Your task to perform on an android device: Open Android settings Image 0: 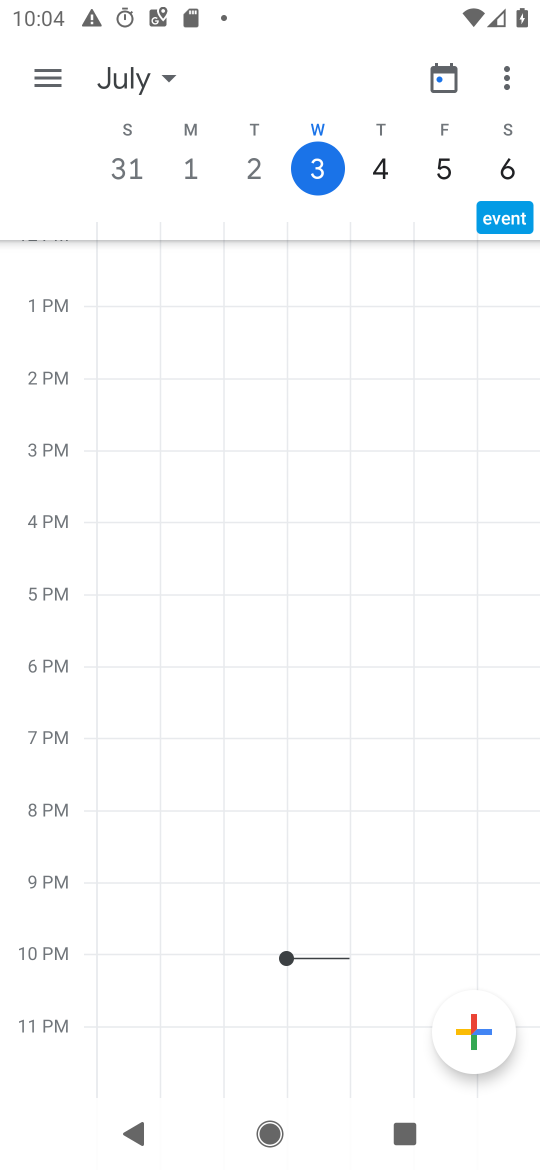
Step 0: press home button
Your task to perform on an android device: Open Android settings Image 1: 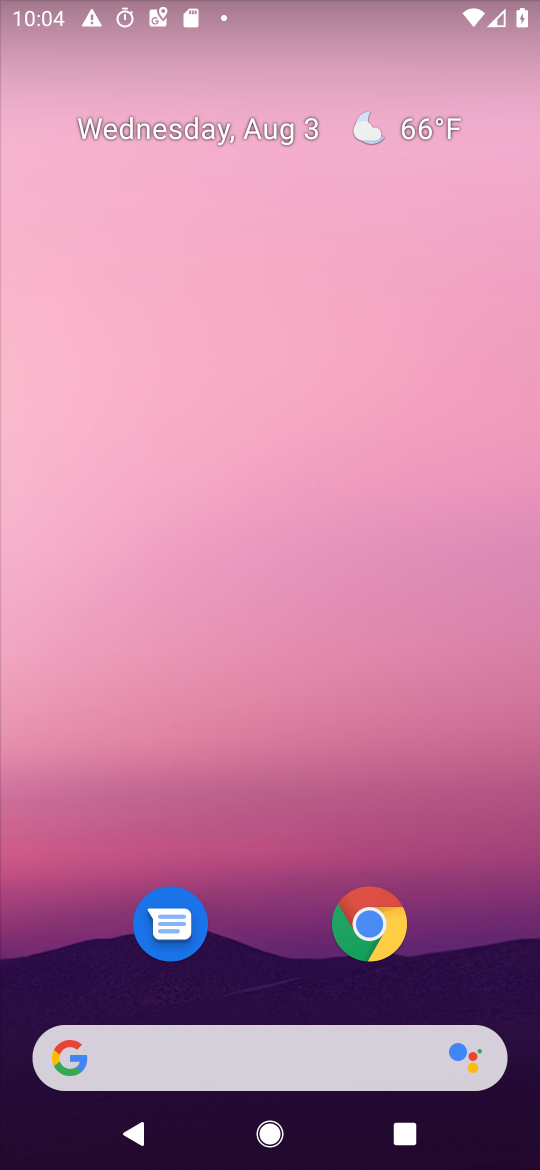
Step 1: drag from (265, 1000) to (274, 42)
Your task to perform on an android device: Open Android settings Image 2: 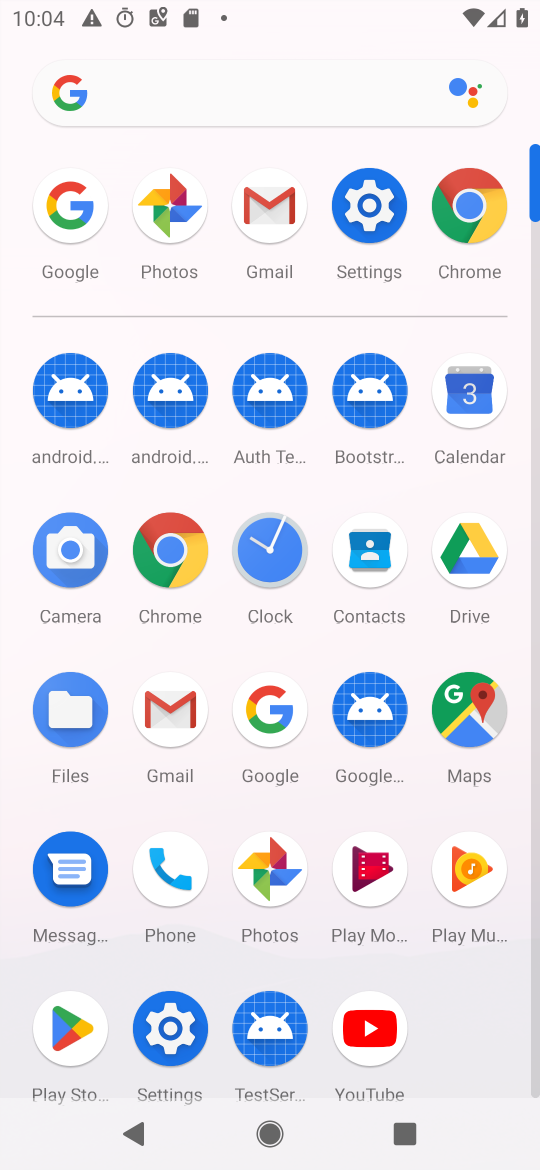
Step 2: click (366, 211)
Your task to perform on an android device: Open Android settings Image 3: 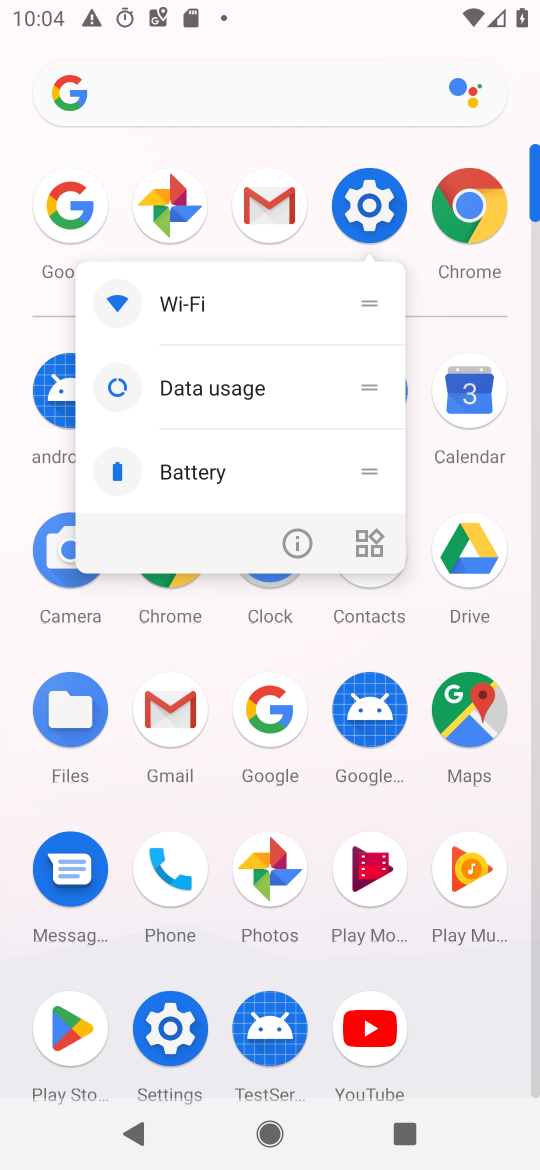
Step 3: click (385, 194)
Your task to perform on an android device: Open Android settings Image 4: 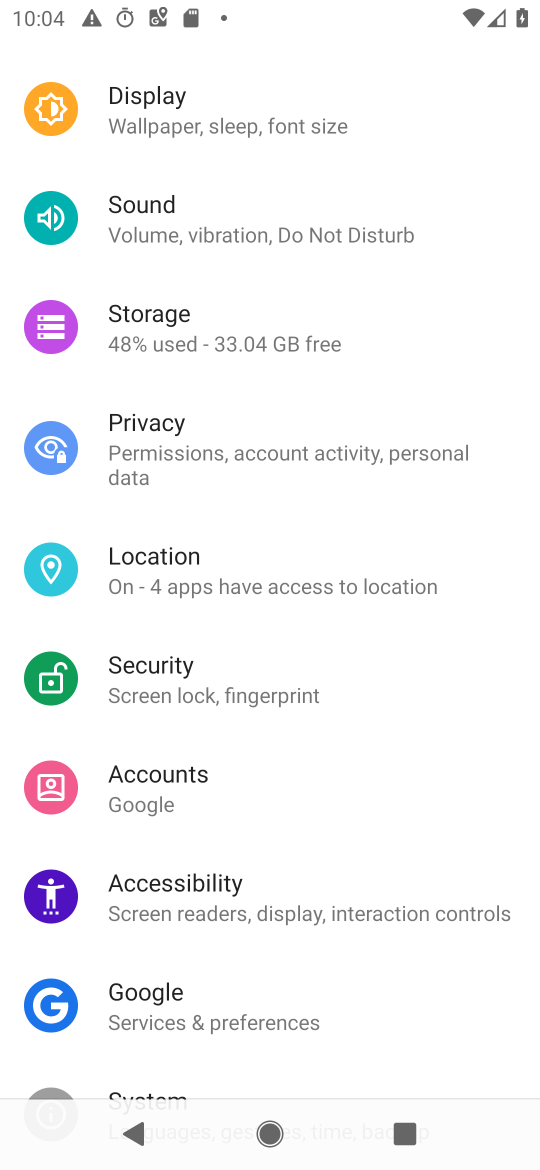
Step 4: drag from (263, 994) to (261, 202)
Your task to perform on an android device: Open Android settings Image 5: 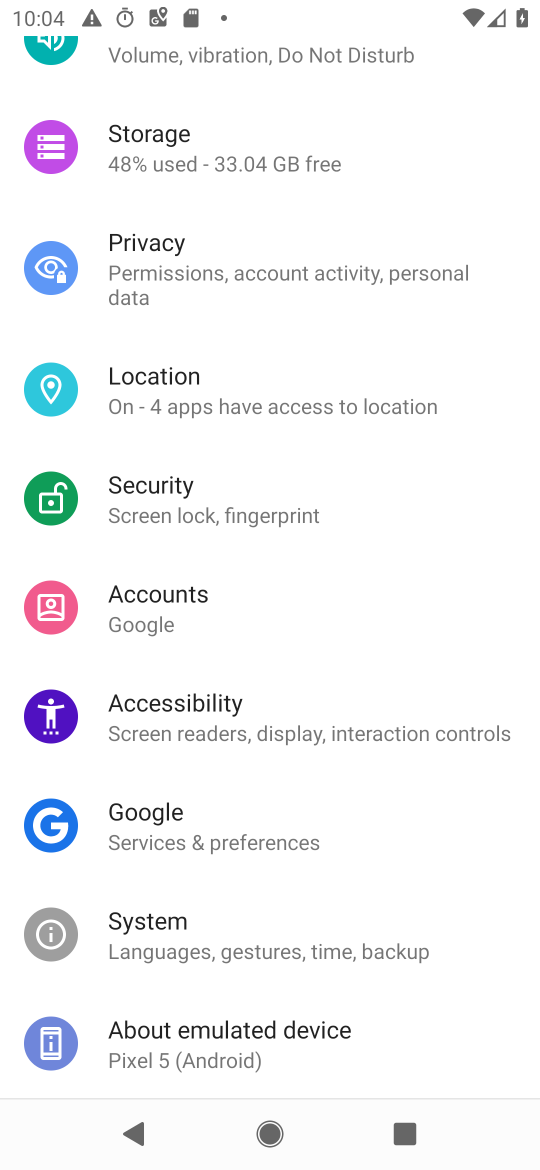
Step 5: click (292, 1030)
Your task to perform on an android device: Open Android settings Image 6: 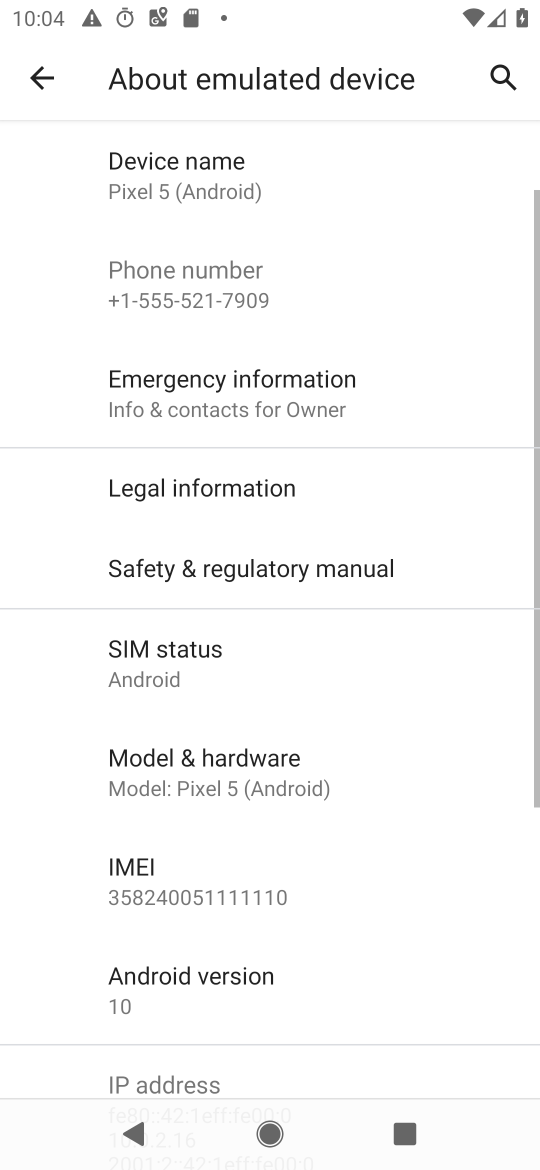
Step 6: click (265, 994)
Your task to perform on an android device: Open Android settings Image 7: 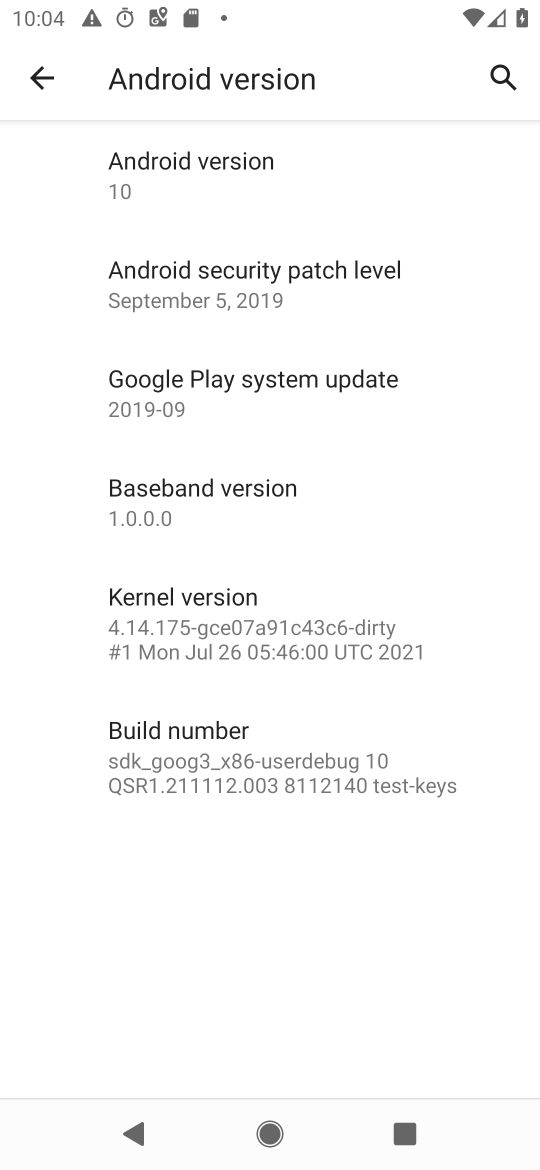
Step 7: task complete